Your task to perform on an android device: Clear all items from cart on target.com. Search for "razer blade" on target.com, select the first entry, and add it to the cart. Image 0: 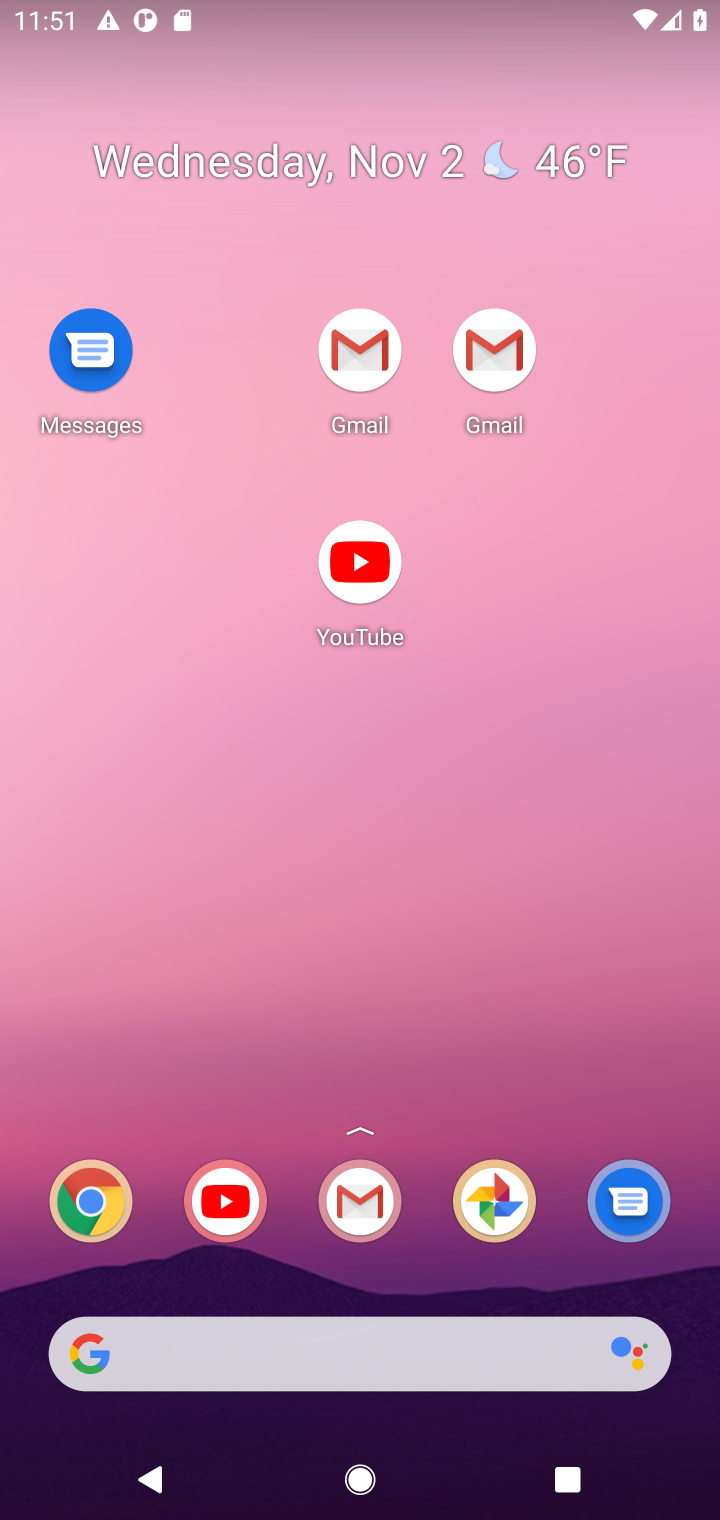
Step 0: drag from (429, 1277) to (320, 317)
Your task to perform on an android device: Clear all items from cart on target.com. Search for "razer blade" on target.com, select the first entry, and add it to the cart. Image 1: 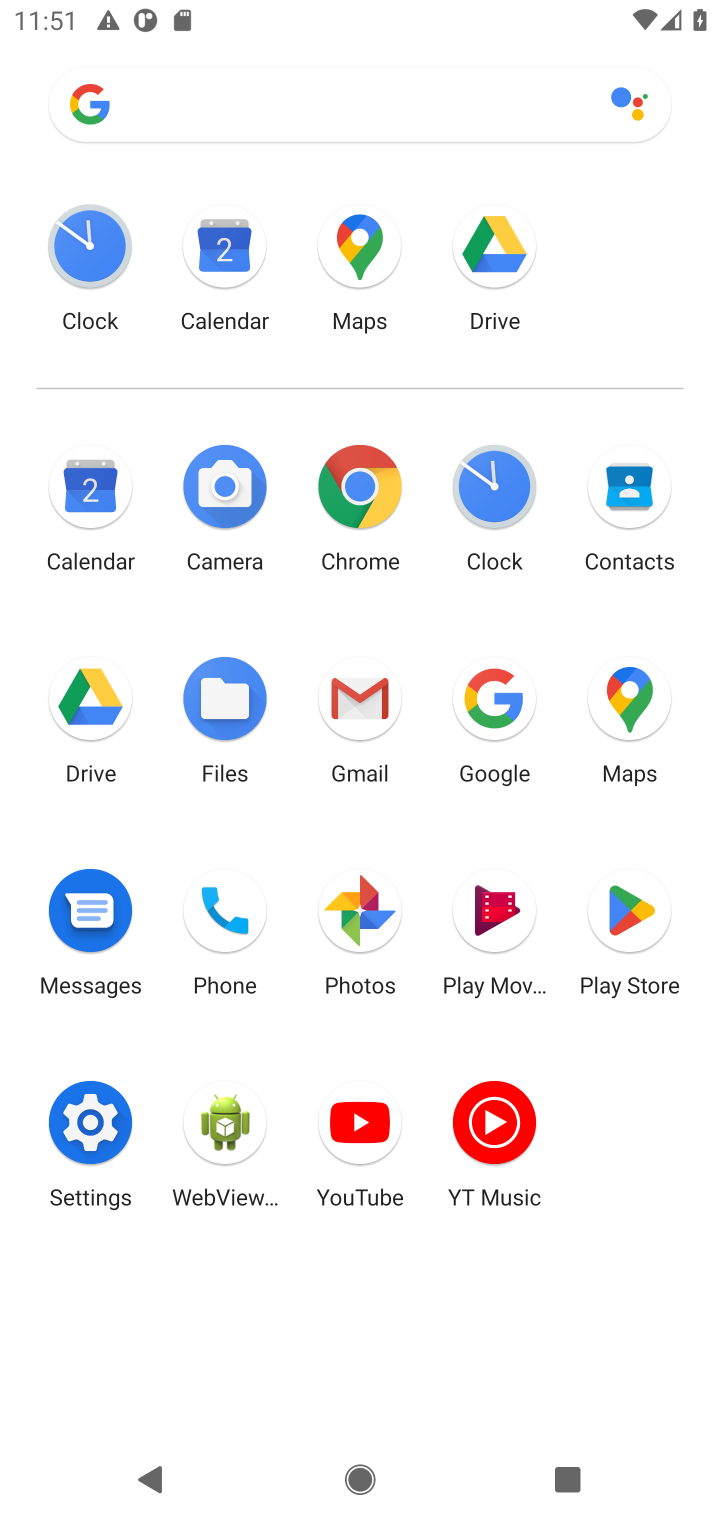
Step 1: click (358, 490)
Your task to perform on an android device: Clear all items from cart on target.com. Search for "razer blade" on target.com, select the first entry, and add it to the cart. Image 2: 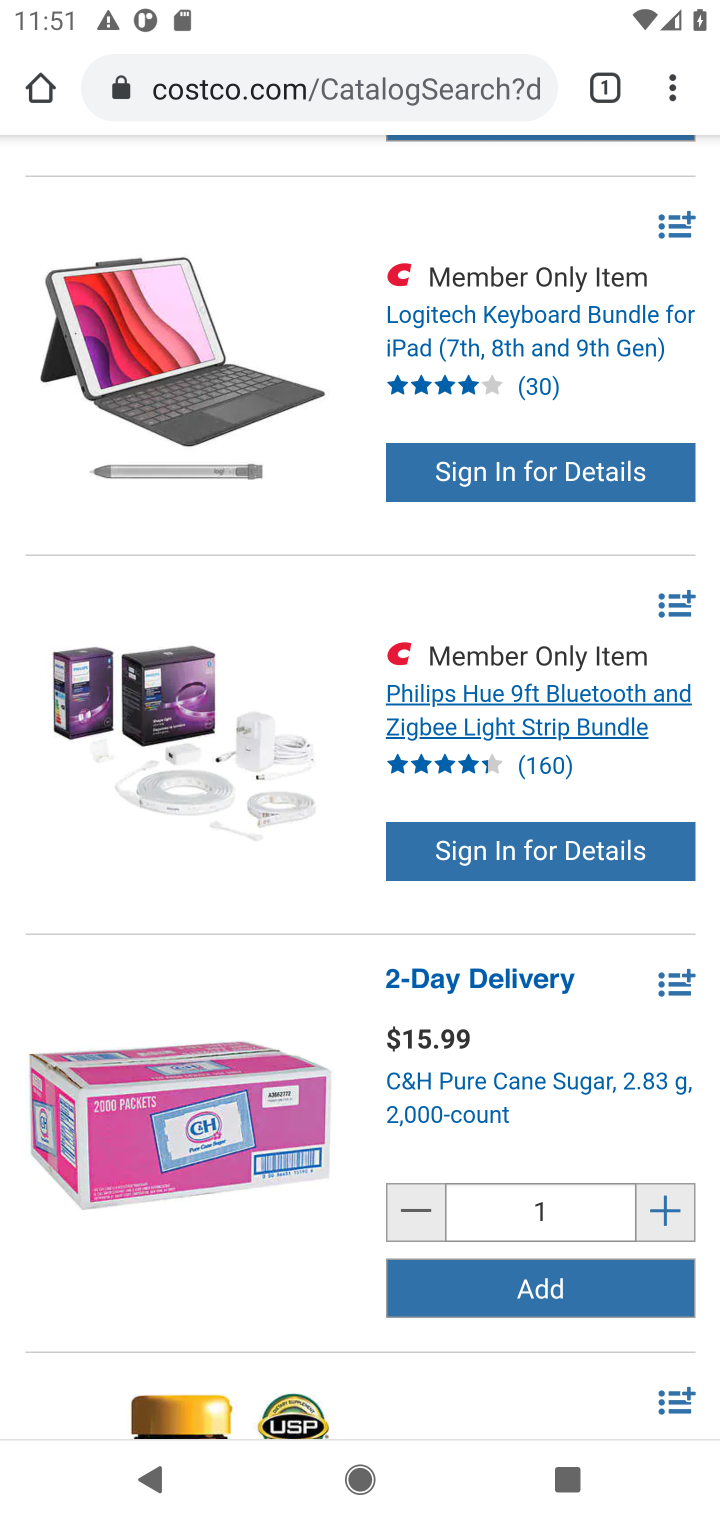
Step 2: click (289, 90)
Your task to perform on an android device: Clear all items from cart on target.com. Search for "razer blade" on target.com, select the first entry, and add it to the cart. Image 3: 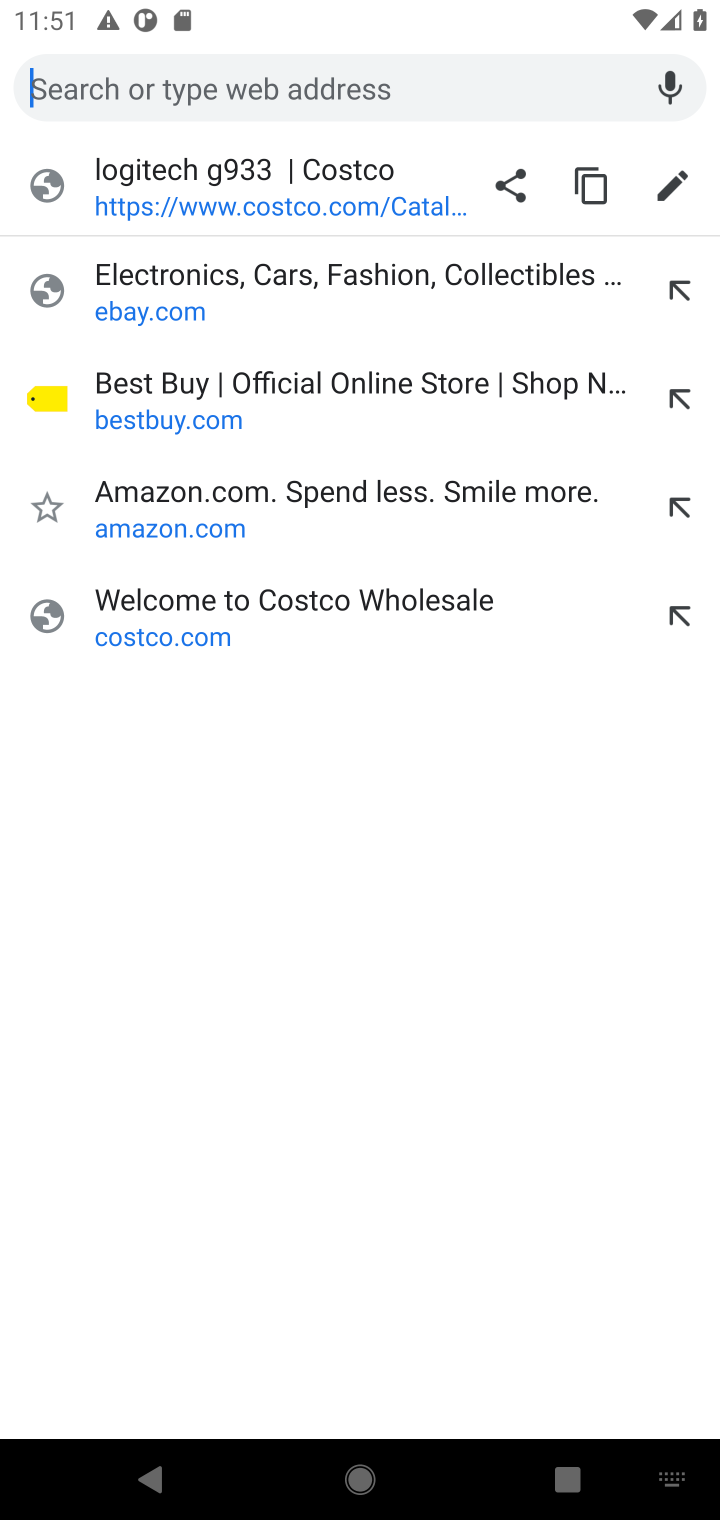
Step 3: type "target.com"
Your task to perform on an android device: Clear all items from cart on target.com. Search for "razer blade" on target.com, select the first entry, and add it to the cart. Image 4: 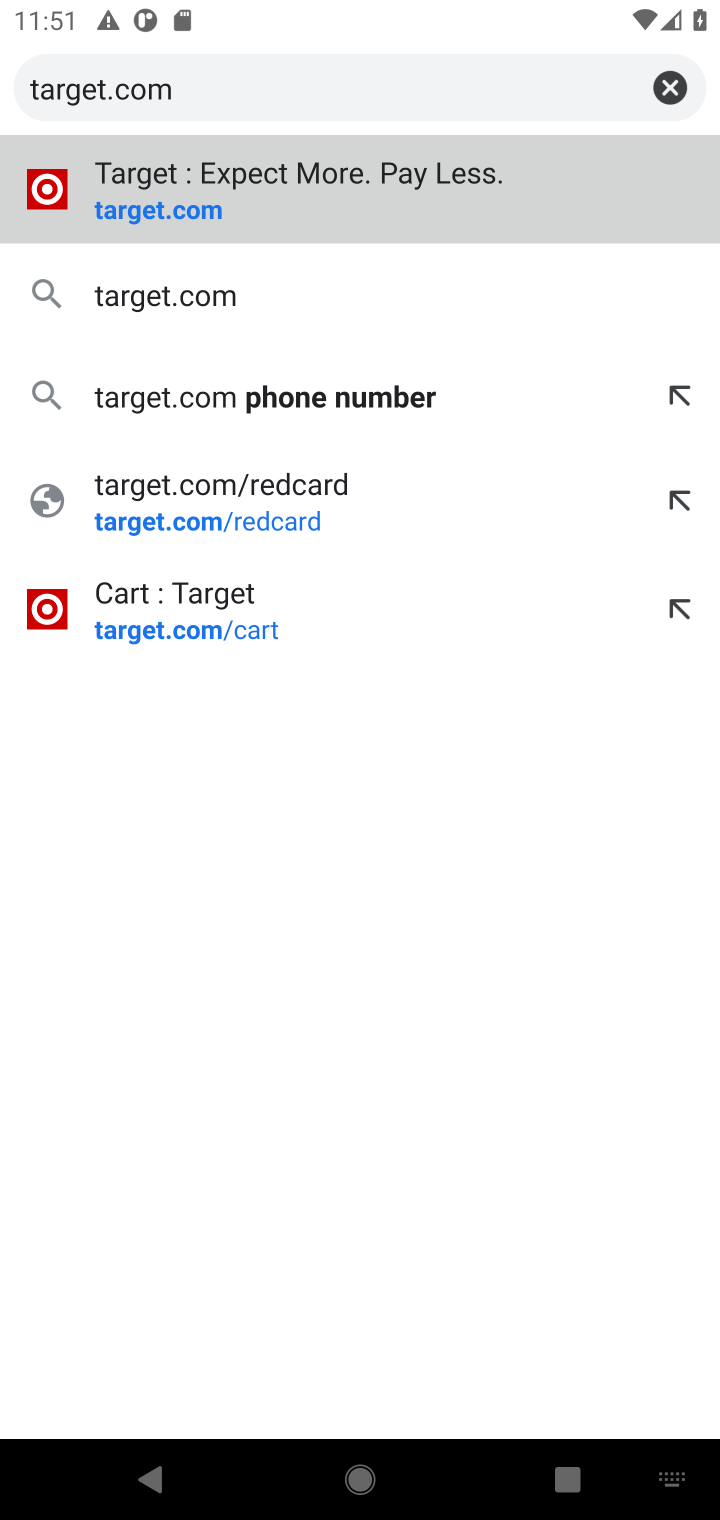
Step 4: press enter
Your task to perform on an android device: Clear all items from cart on target.com. Search for "razer blade" on target.com, select the first entry, and add it to the cart. Image 5: 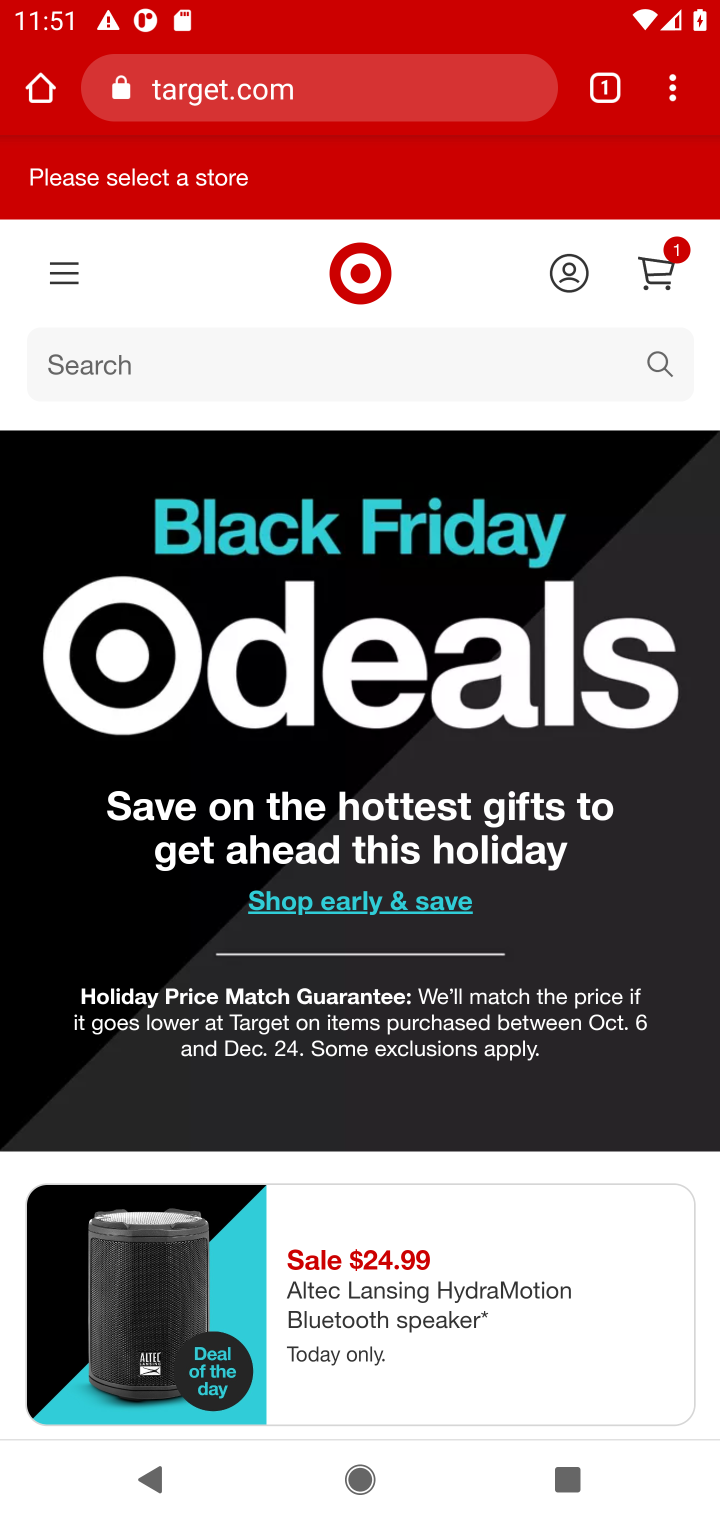
Step 5: click (658, 264)
Your task to perform on an android device: Clear all items from cart on target.com. Search for "razer blade" on target.com, select the first entry, and add it to the cart. Image 6: 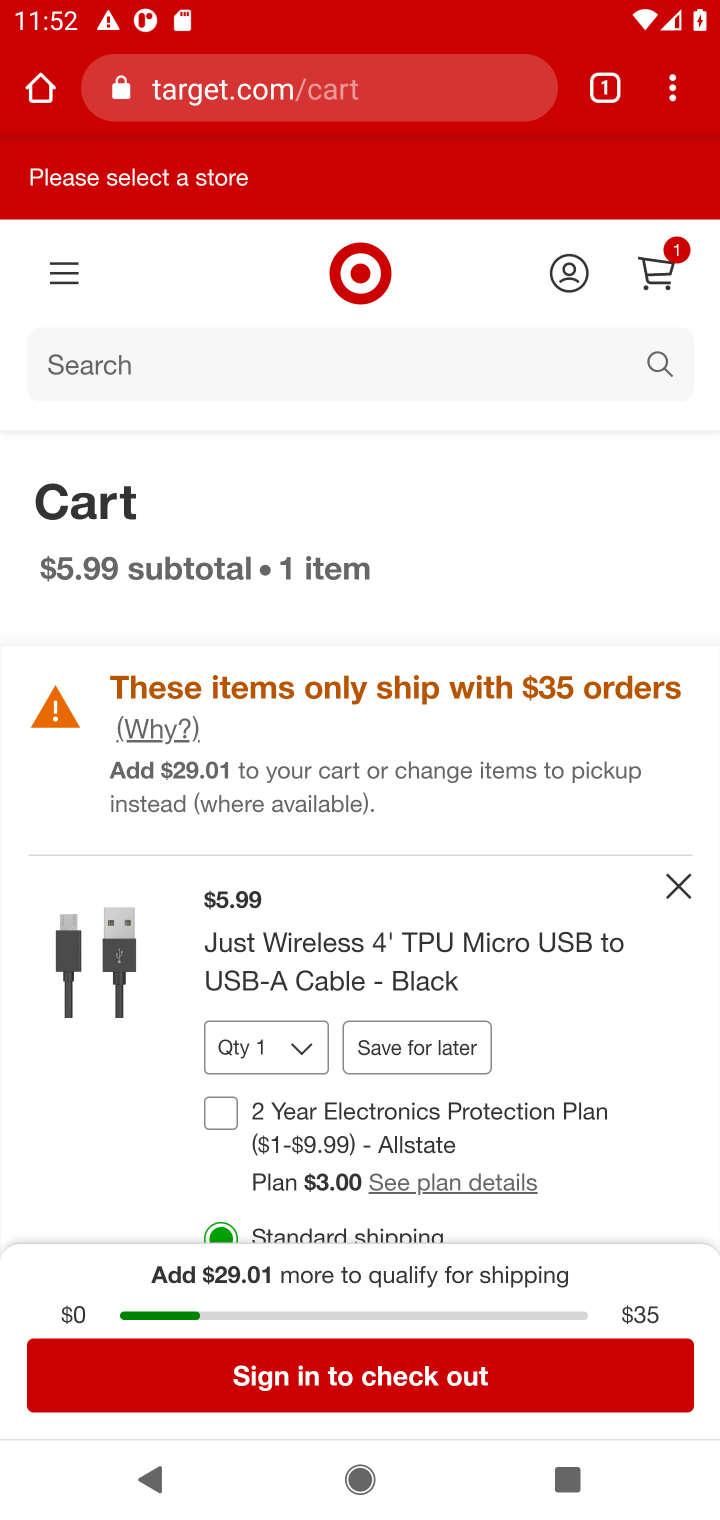
Step 6: click (664, 878)
Your task to perform on an android device: Clear all items from cart on target.com. Search for "razer blade" on target.com, select the first entry, and add it to the cart. Image 7: 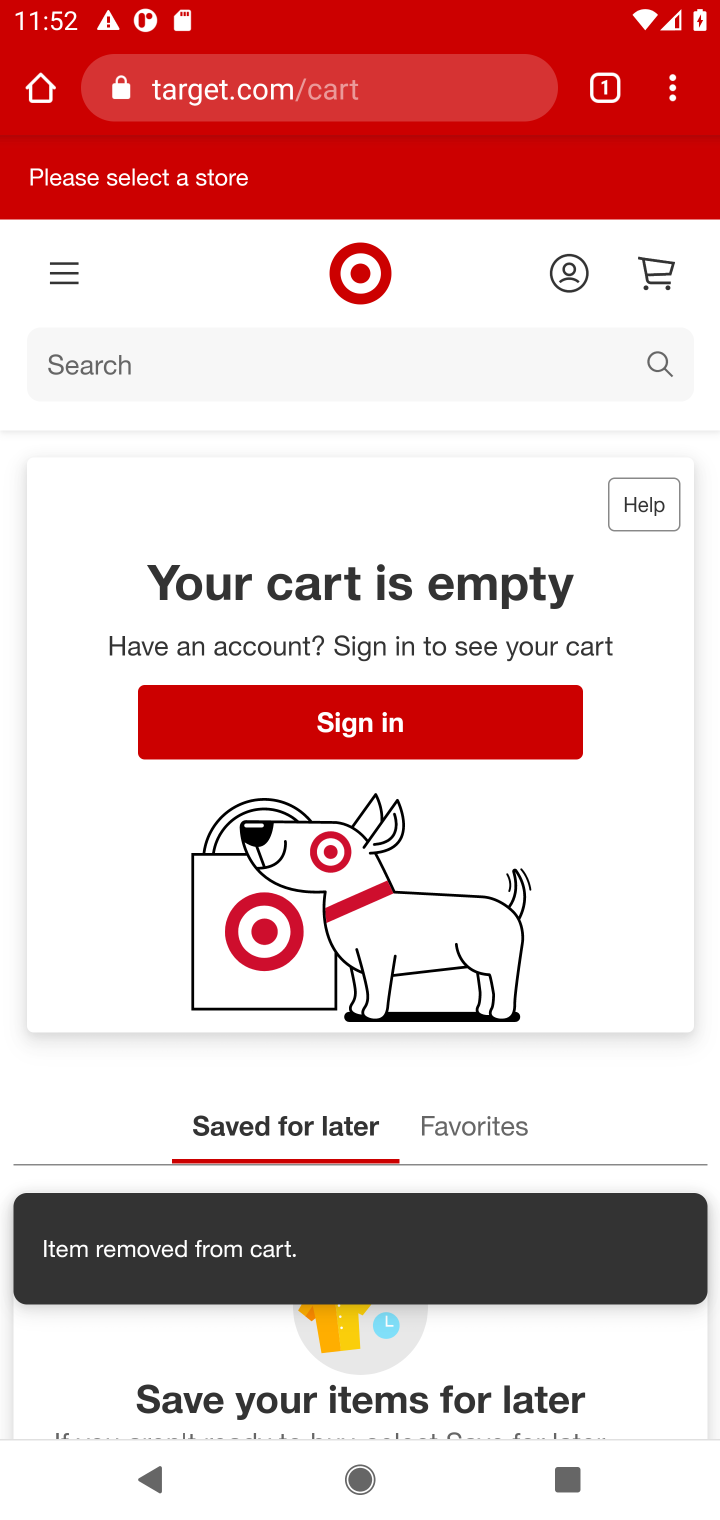
Step 7: click (296, 363)
Your task to perform on an android device: Clear all items from cart on target.com. Search for "razer blade" on target.com, select the first entry, and add it to the cart. Image 8: 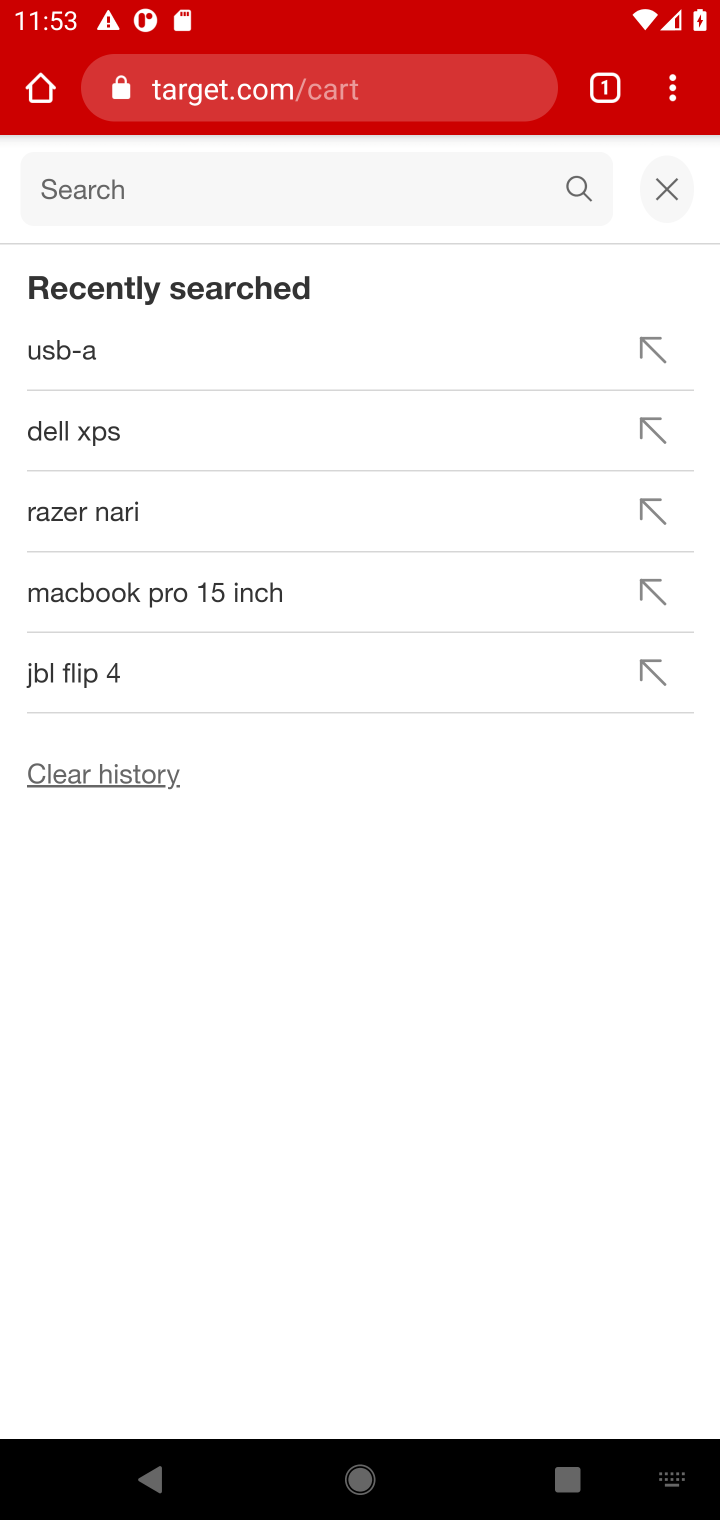
Step 8: type "razer blade"
Your task to perform on an android device: Clear all items from cart on target.com. Search for "razer blade" on target.com, select the first entry, and add it to the cart. Image 9: 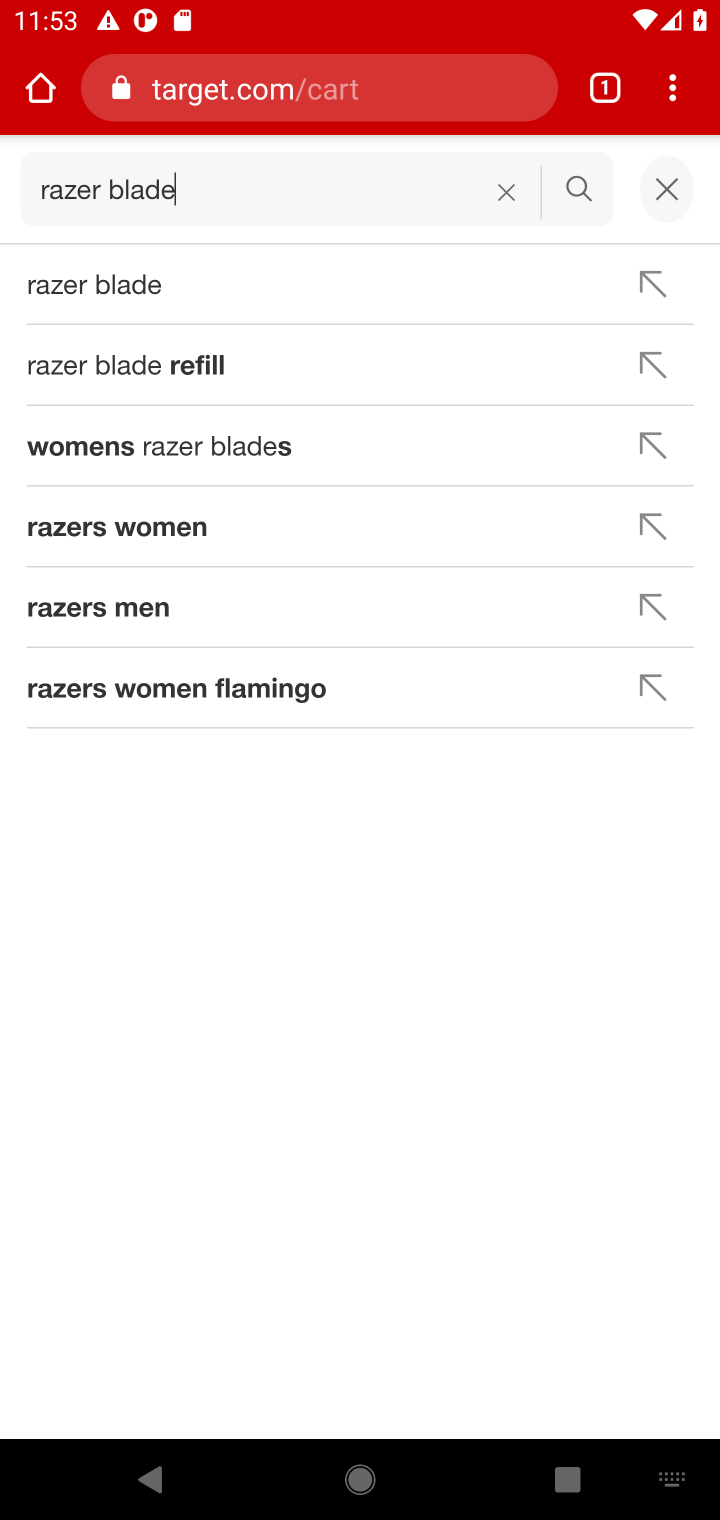
Step 9: press enter
Your task to perform on an android device: Clear all items from cart on target.com. Search for "razer blade" on target.com, select the first entry, and add it to the cart. Image 10: 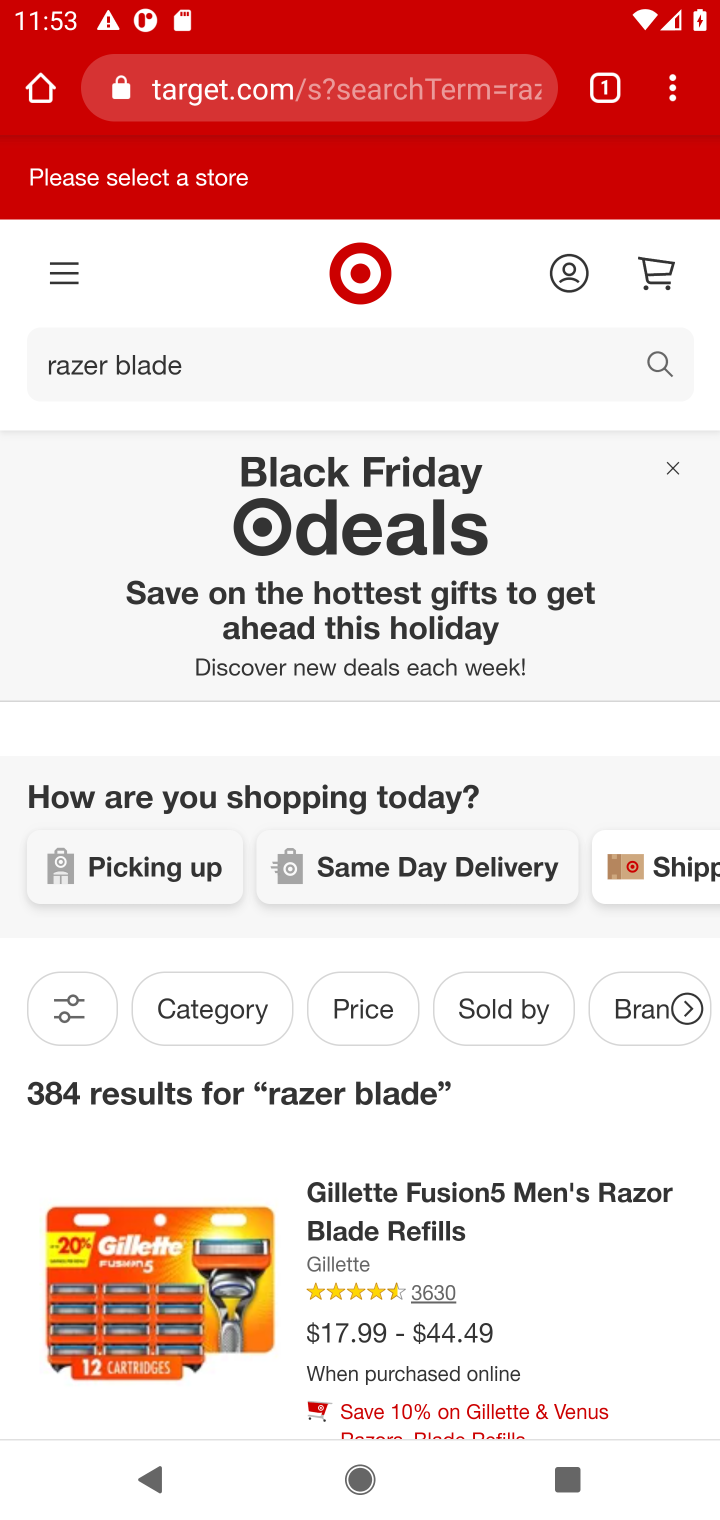
Step 10: drag from (495, 1288) to (373, 738)
Your task to perform on an android device: Clear all items from cart on target.com. Search for "razer blade" on target.com, select the first entry, and add it to the cart. Image 11: 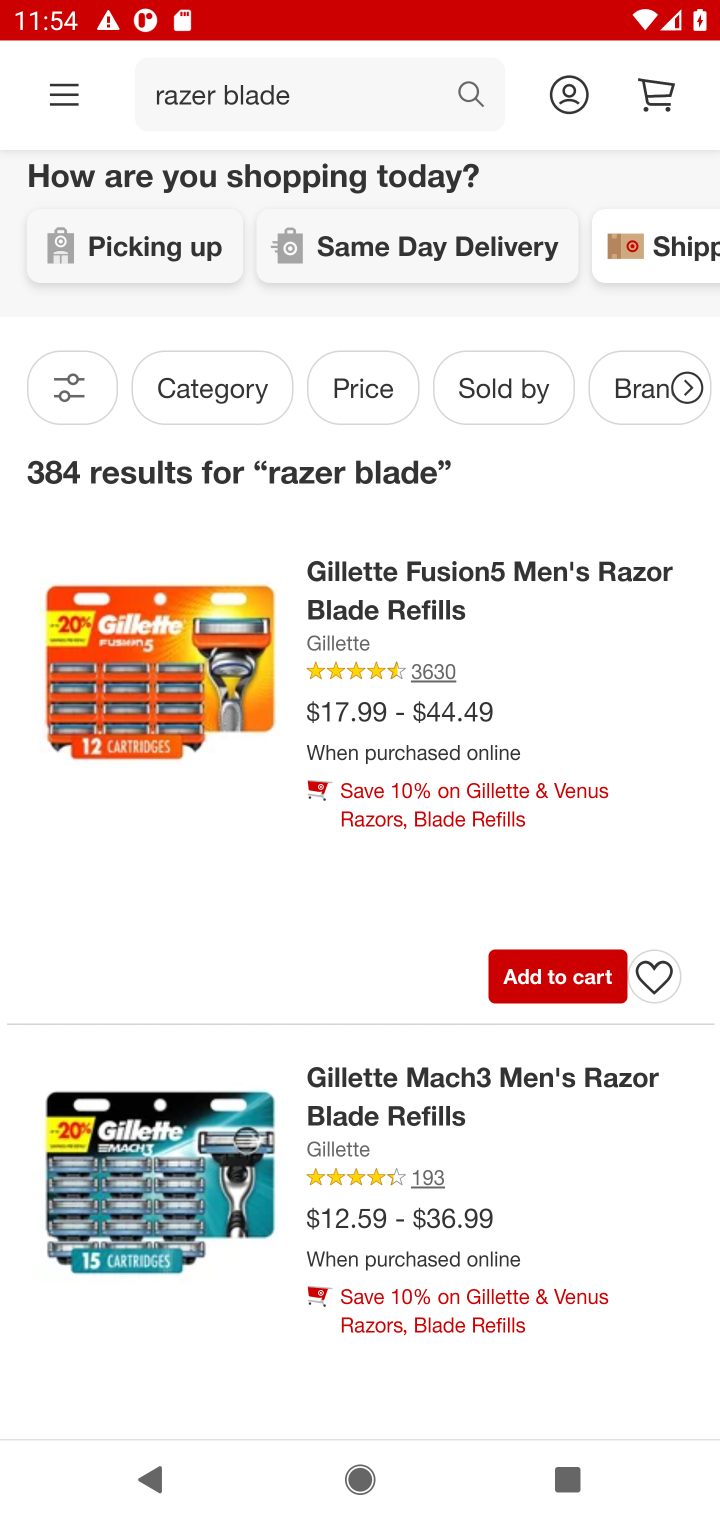
Step 11: click (205, 599)
Your task to perform on an android device: Clear all items from cart on target.com. Search for "razer blade" on target.com, select the first entry, and add it to the cart. Image 12: 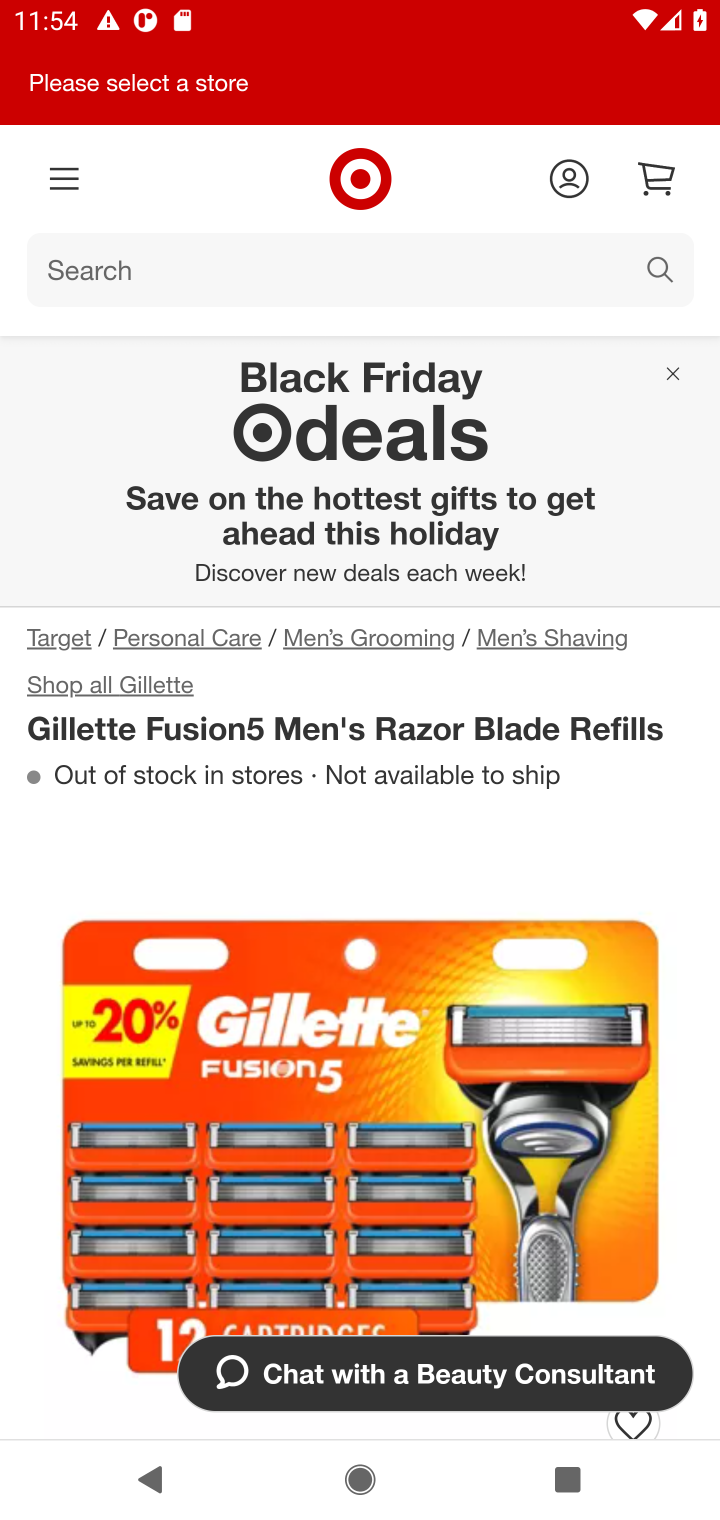
Step 12: drag from (346, 957) to (242, 424)
Your task to perform on an android device: Clear all items from cart on target.com. Search for "razer blade" on target.com, select the first entry, and add it to the cart. Image 13: 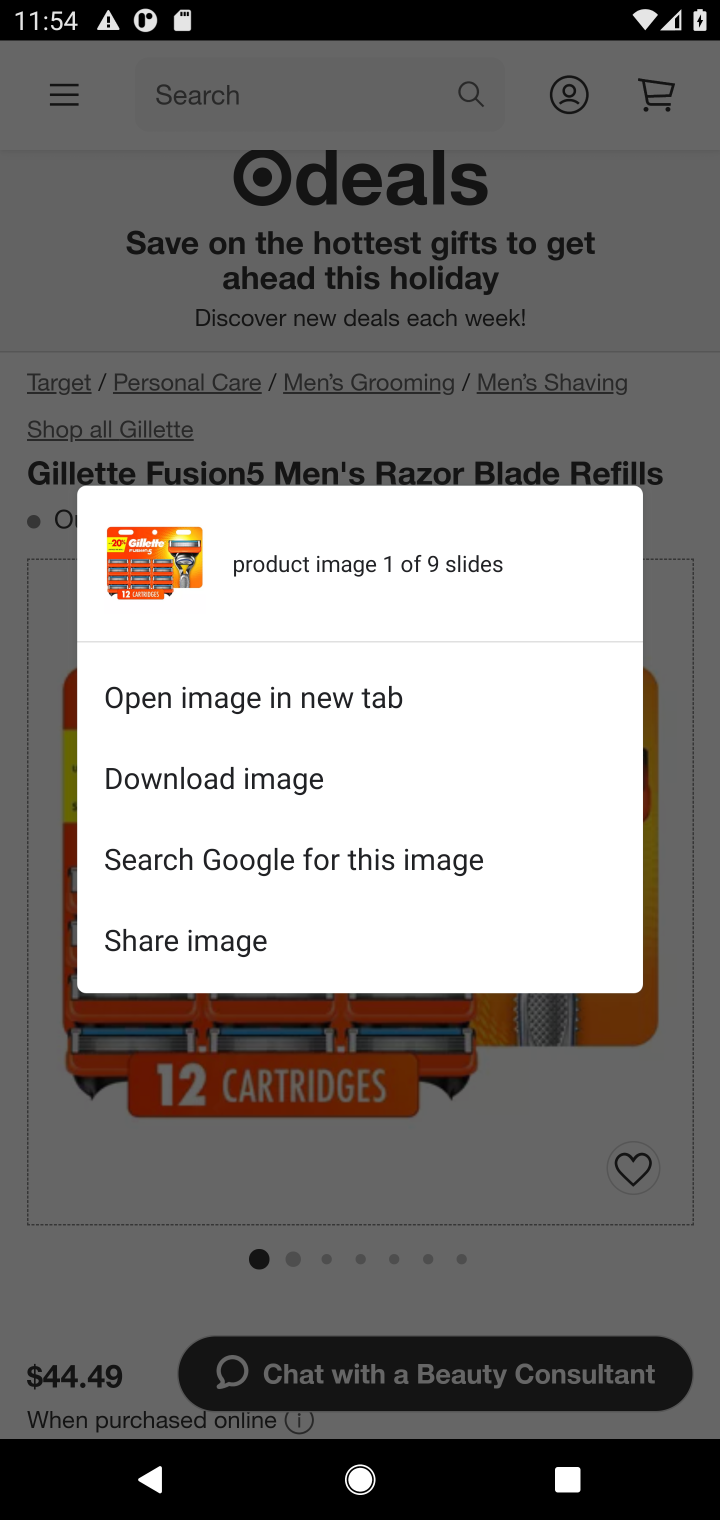
Step 13: click (268, 379)
Your task to perform on an android device: Clear all items from cart on target.com. Search for "razer blade" on target.com, select the first entry, and add it to the cart. Image 14: 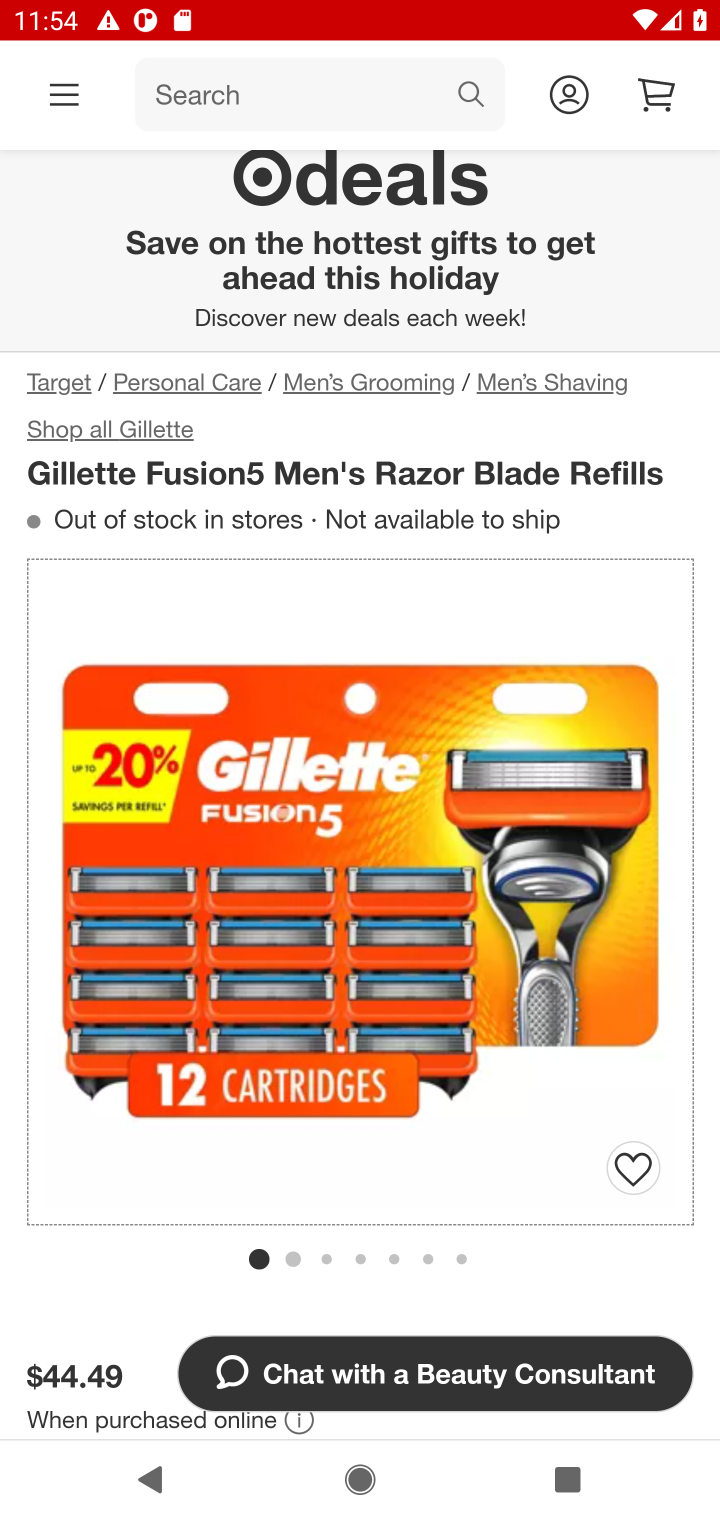
Step 14: drag from (351, 1142) to (329, 605)
Your task to perform on an android device: Clear all items from cart on target.com. Search for "razer blade" on target.com, select the first entry, and add it to the cart. Image 15: 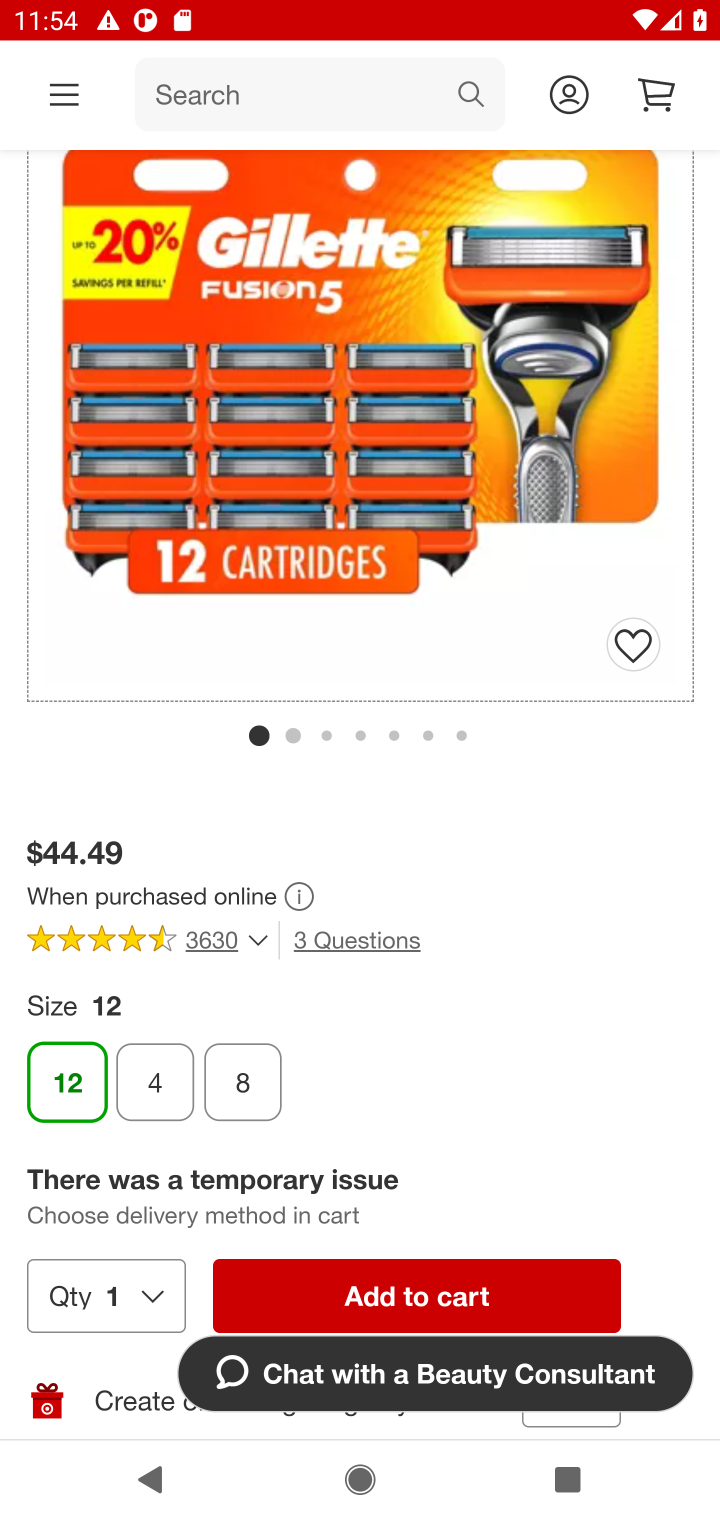
Step 15: click (425, 1304)
Your task to perform on an android device: Clear all items from cart on target.com. Search for "razer blade" on target.com, select the first entry, and add it to the cart. Image 16: 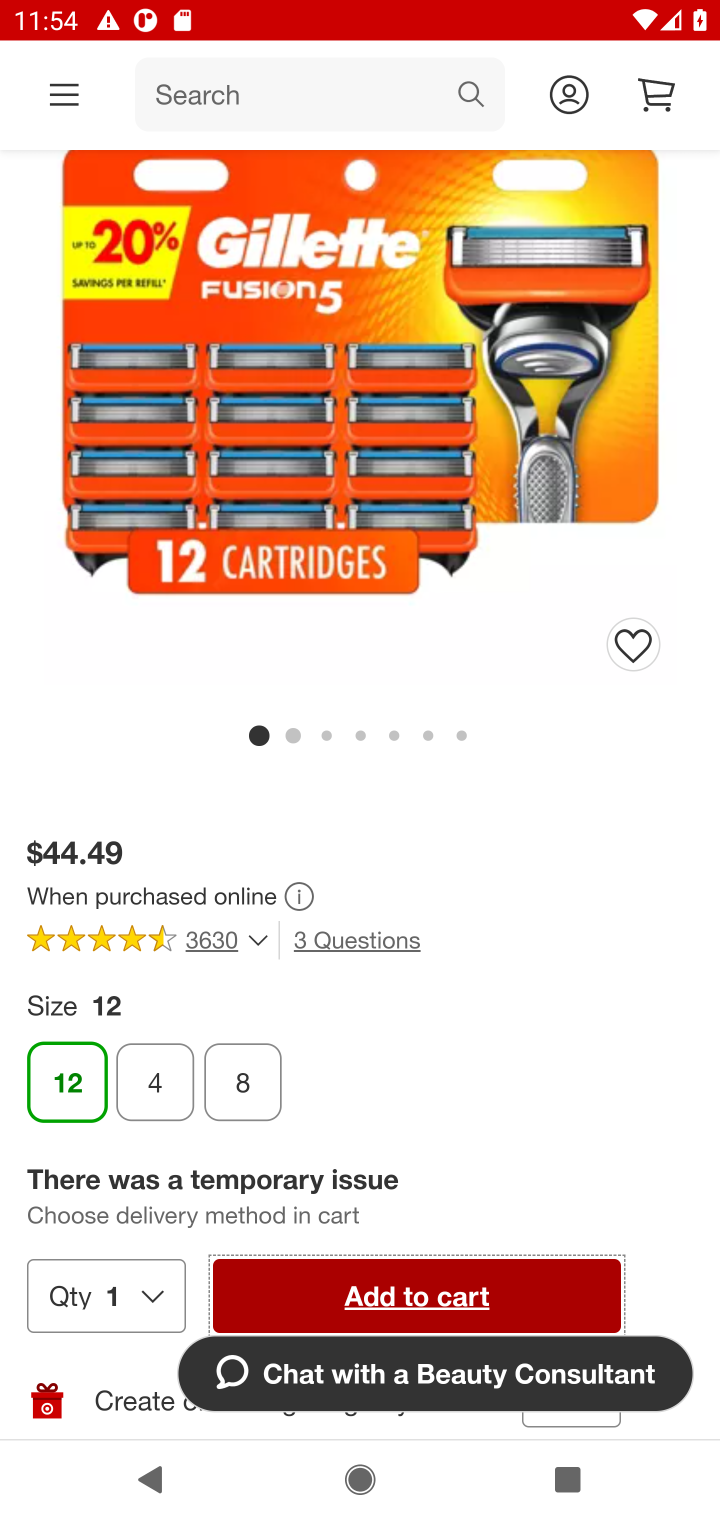
Step 16: drag from (484, 1130) to (498, 812)
Your task to perform on an android device: Clear all items from cart on target.com. Search for "razer blade" on target.com, select the first entry, and add it to the cart. Image 17: 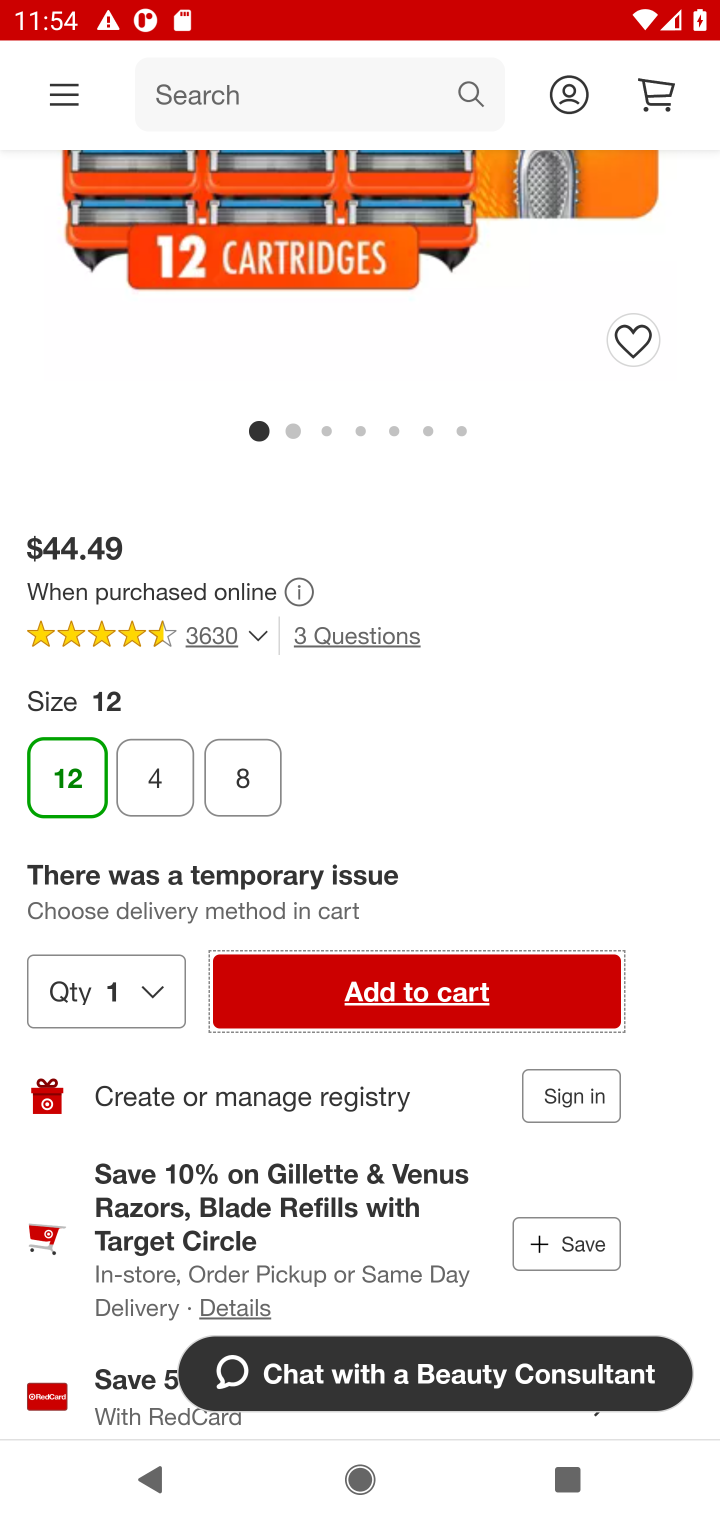
Step 17: click (393, 982)
Your task to perform on an android device: Clear all items from cart on target.com. Search for "razer blade" on target.com, select the first entry, and add it to the cart. Image 18: 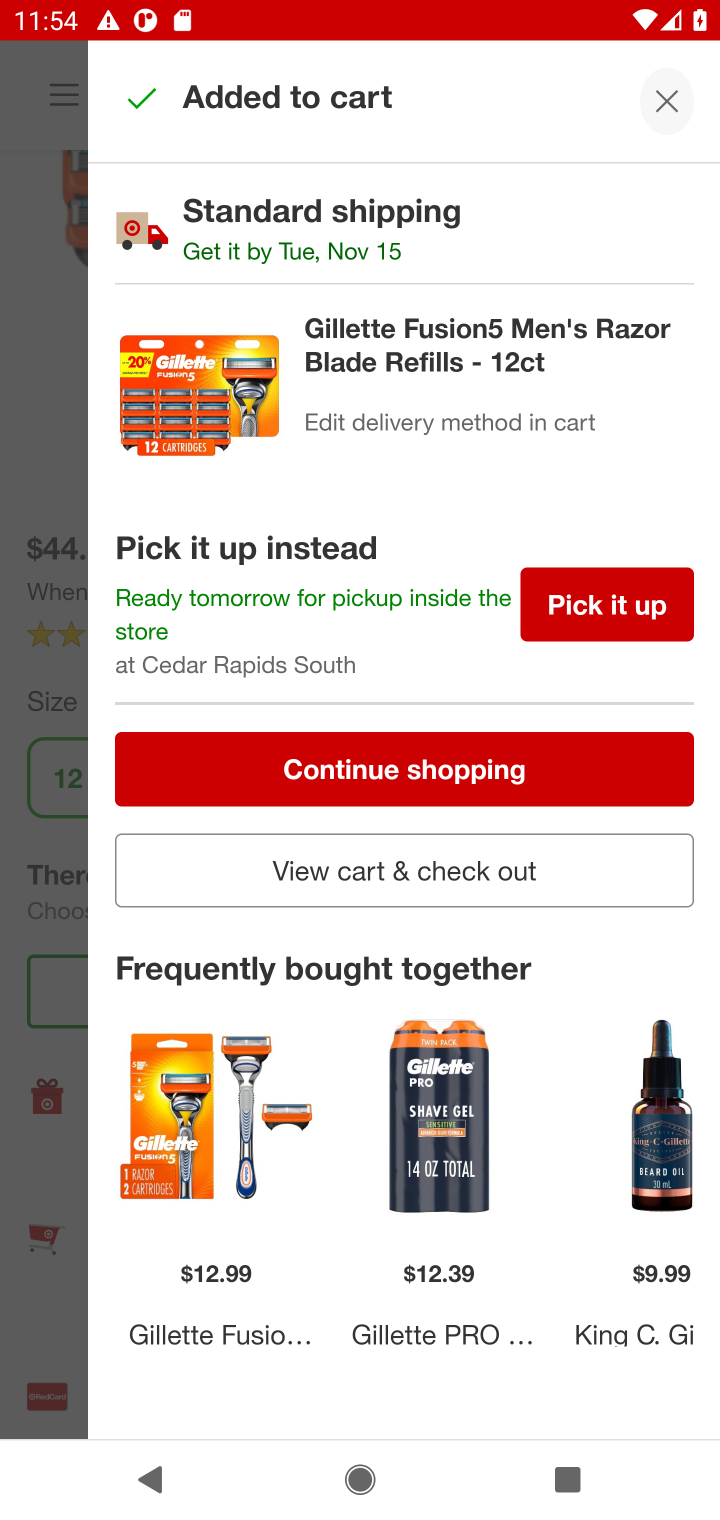
Step 18: click (495, 875)
Your task to perform on an android device: Clear all items from cart on target.com. Search for "razer blade" on target.com, select the first entry, and add it to the cart. Image 19: 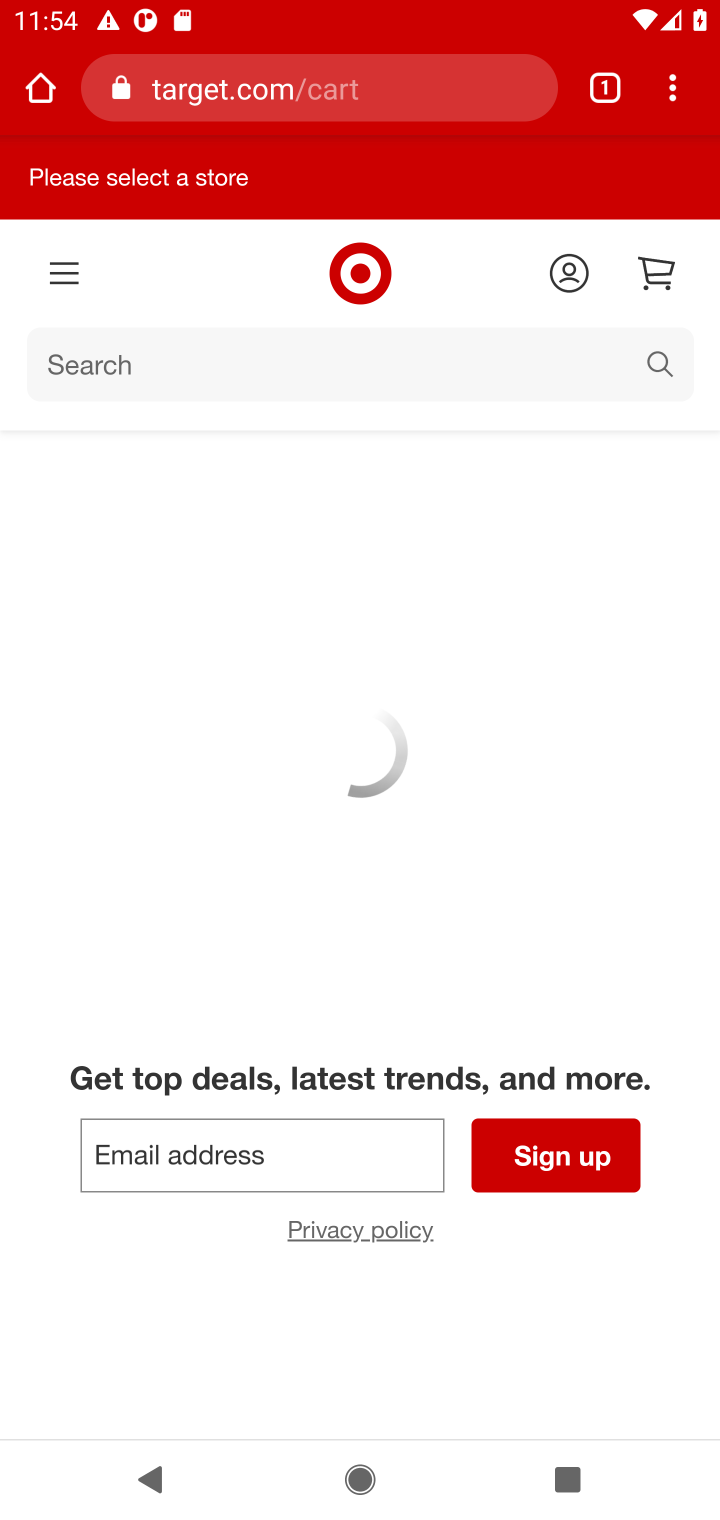
Step 19: task complete